Your task to perform on an android device: star an email in the gmail app Image 0: 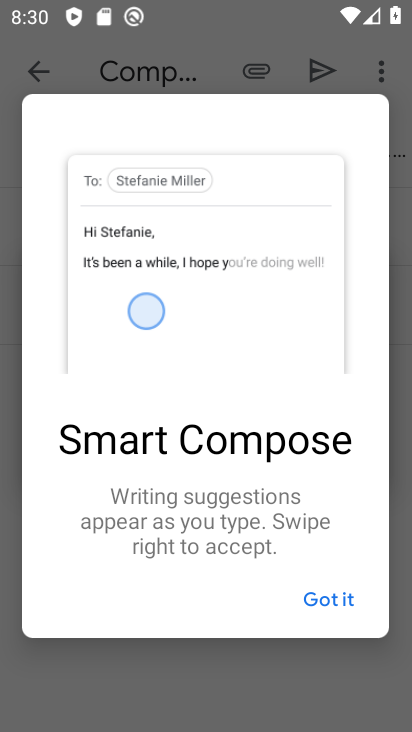
Step 0: press home button
Your task to perform on an android device: star an email in the gmail app Image 1: 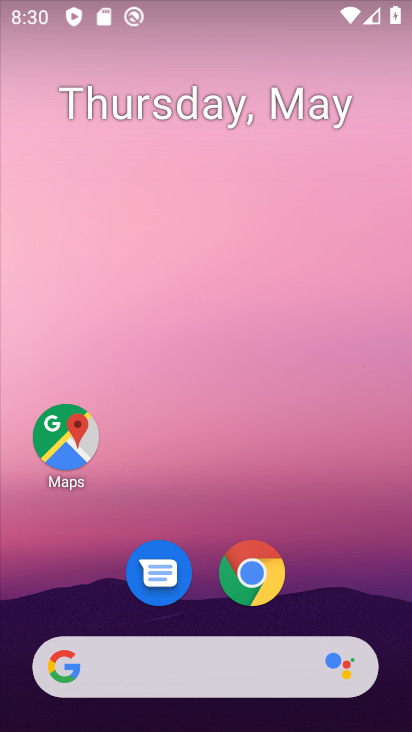
Step 1: drag from (340, 600) to (354, 183)
Your task to perform on an android device: star an email in the gmail app Image 2: 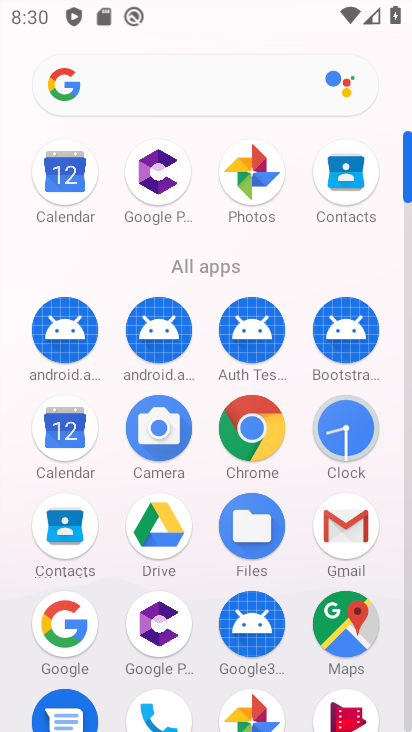
Step 2: click (361, 531)
Your task to perform on an android device: star an email in the gmail app Image 3: 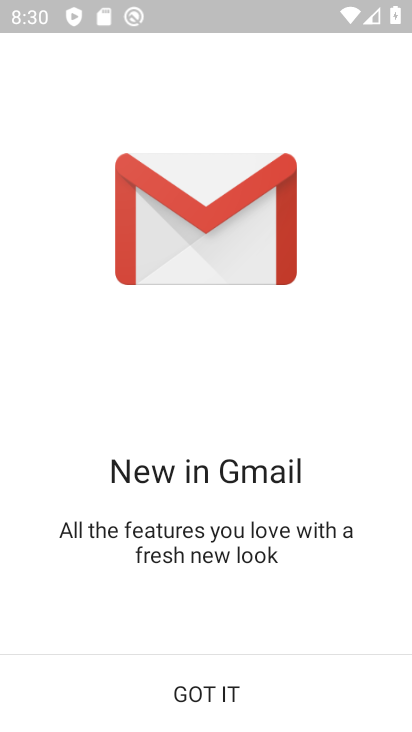
Step 3: click (226, 705)
Your task to perform on an android device: star an email in the gmail app Image 4: 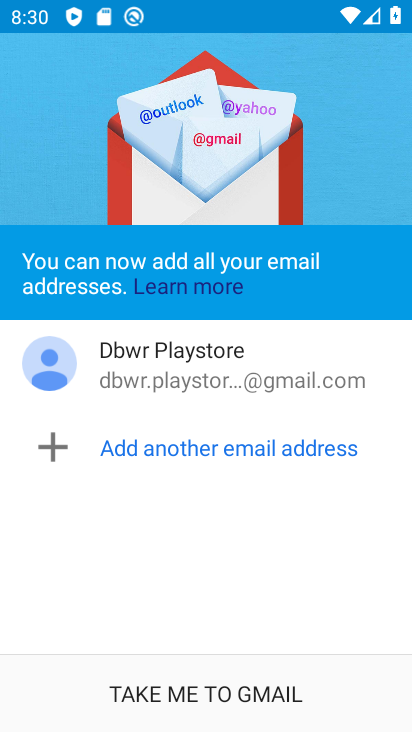
Step 4: click (226, 705)
Your task to perform on an android device: star an email in the gmail app Image 5: 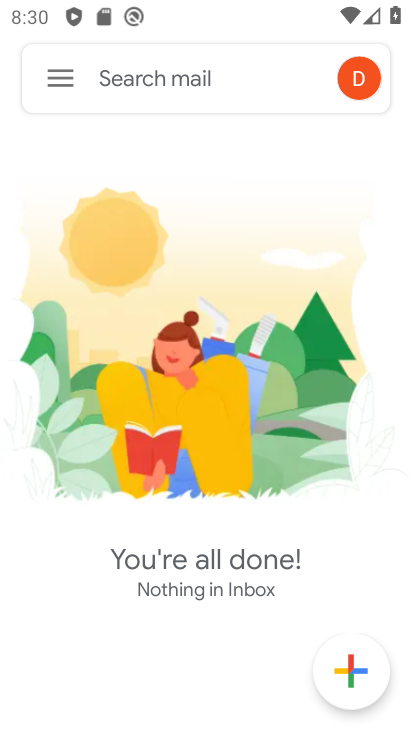
Step 5: task complete